Your task to perform on an android device: Go to battery settings Image 0: 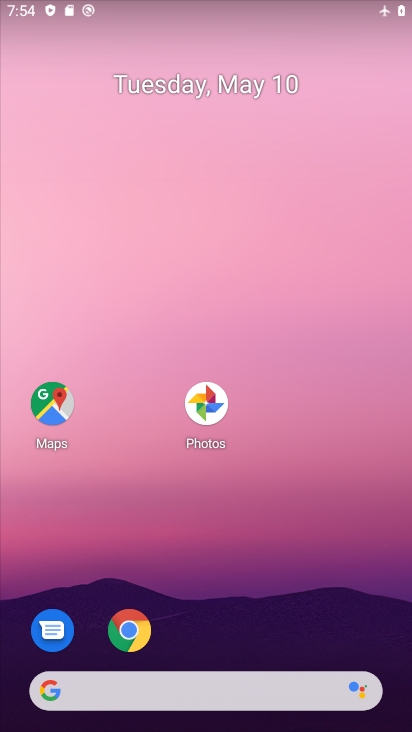
Step 0: drag from (212, 663) to (206, 1)
Your task to perform on an android device: Go to battery settings Image 1: 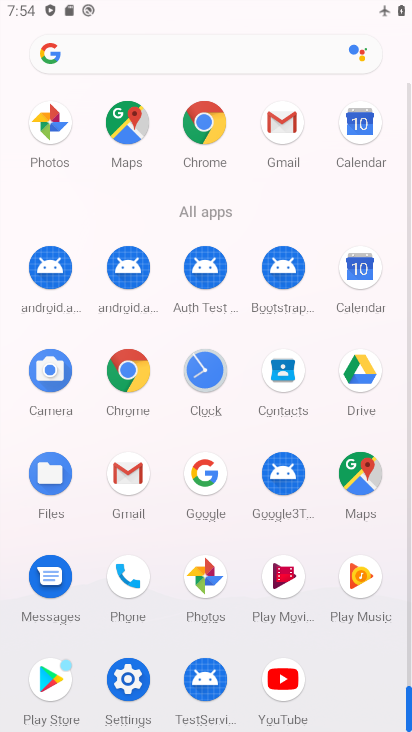
Step 1: click (117, 692)
Your task to perform on an android device: Go to battery settings Image 2: 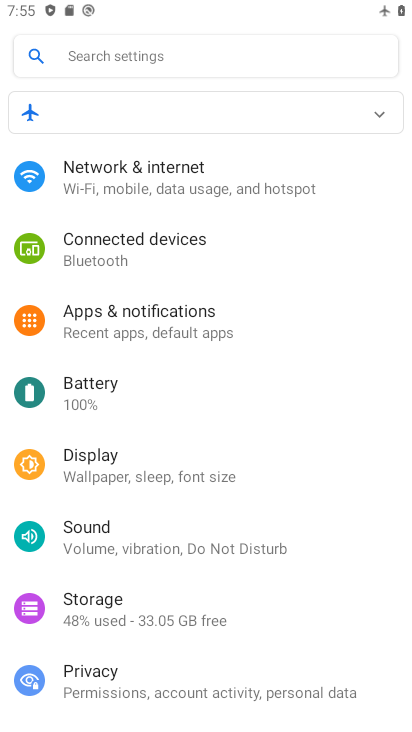
Step 2: click (97, 387)
Your task to perform on an android device: Go to battery settings Image 3: 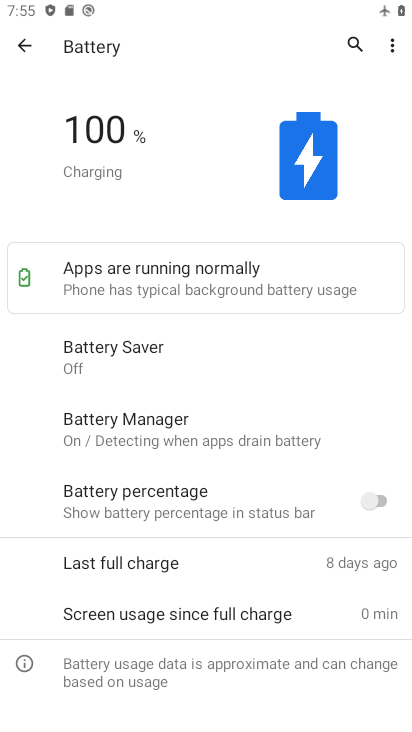
Step 3: task complete